Your task to perform on an android device: Open the phone app and click the voicemail tab. Image 0: 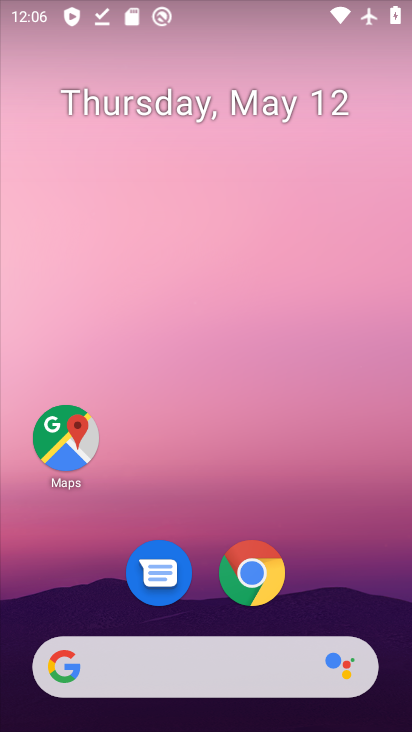
Step 0: drag from (328, 350) to (331, 212)
Your task to perform on an android device: Open the phone app and click the voicemail tab. Image 1: 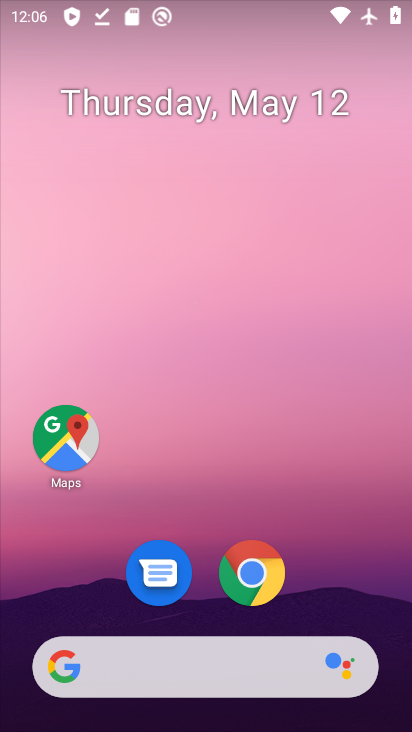
Step 1: drag from (307, 548) to (292, 108)
Your task to perform on an android device: Open the phone app and click the voicemail tab. Image 2: 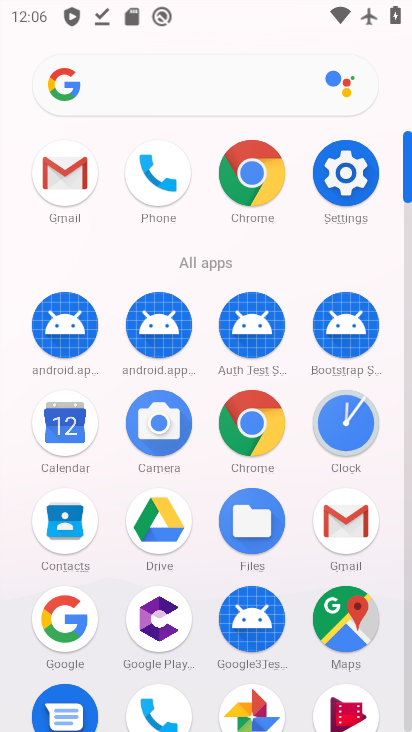
Step 2: click (160, 193)
Your task to perform on an android device: Open the phone app and click the voicemail tab. Image 3: 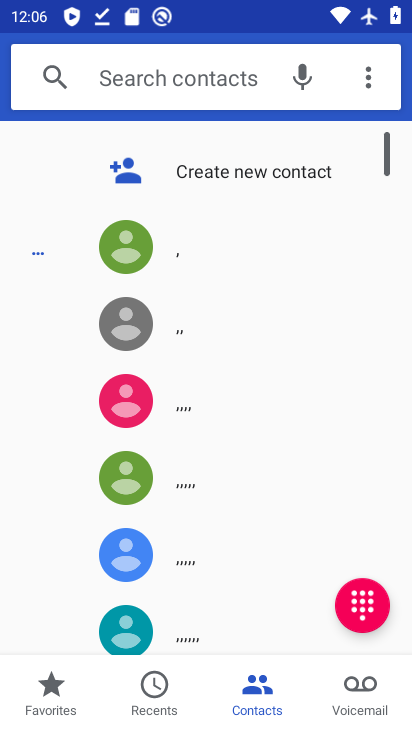
Step 3: click (361, 708)
Your task to perform on an android device: Open the phone app and click the voicemail tab. Image 4: 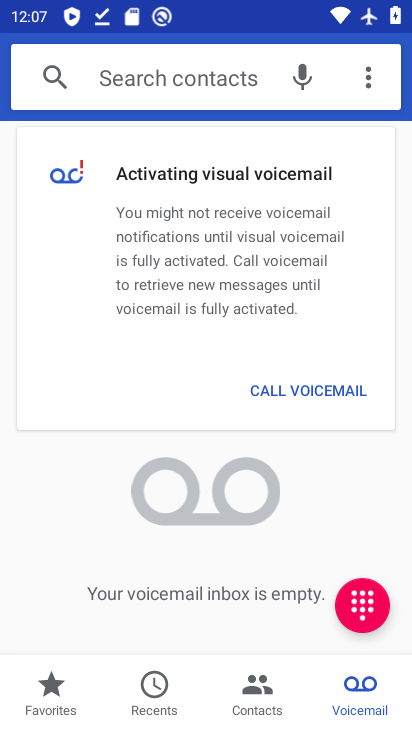
Step 4: task complete